Your task to perform on an android device: toggle pop-ups in chrome Image 0: 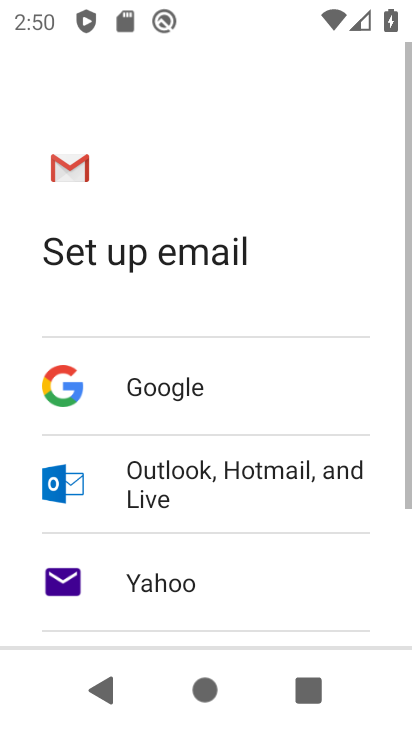
Step 0: press home button
Your task to perform on an android device: toggle pop-ups in chrome Image 1: 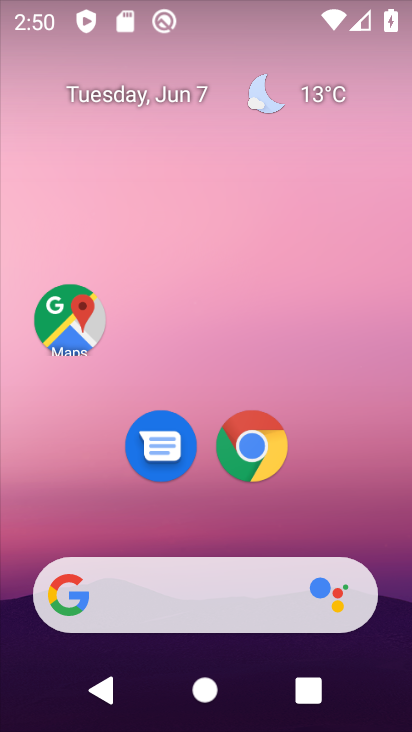
Step 1: click (260, 472)
Your task to perform on an android device: toggle pop-ups in chrome Image 2: 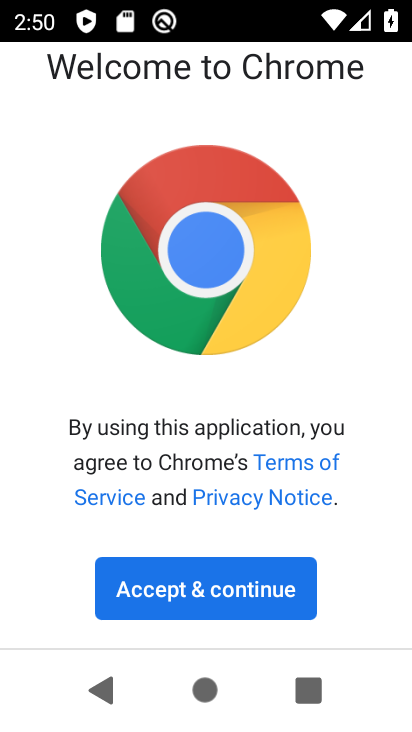
Step 2: click (220, 611)
Your task to perform on an android device: toggle pop-ups in chrome Image 3: 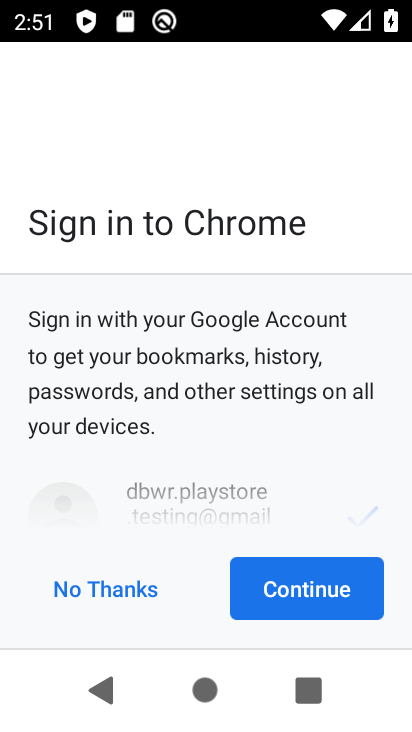
Step 3: click (283, 593)
Your task to perform on an android device: toggle pop-ups in chrome Image 4: 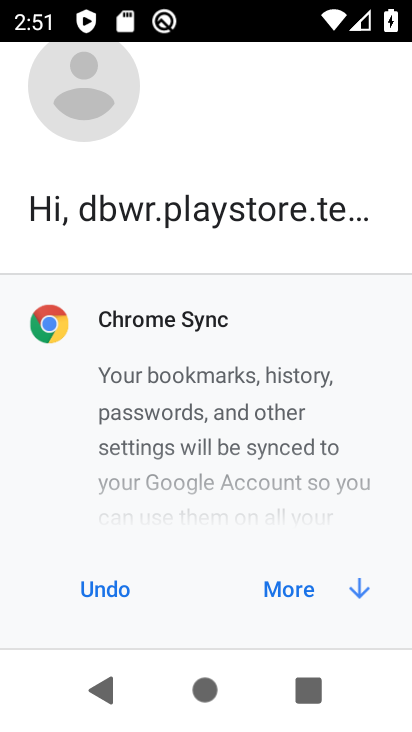
Step 4: click (335, 603)
Your task to perform on an android device: toggle pop-ups in chrome Image 5: 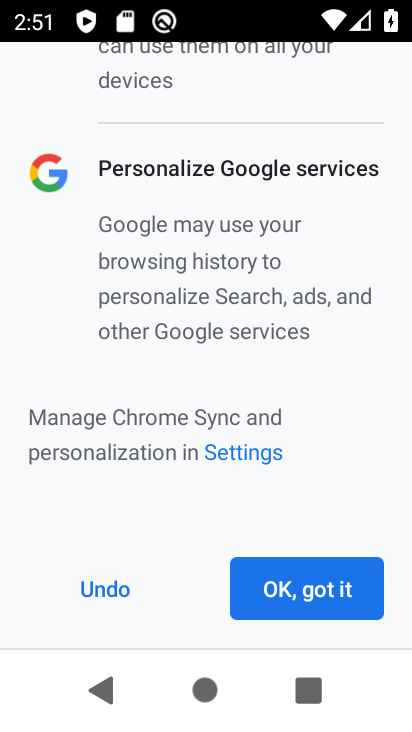
Step 5: click (346, 589)
Your task to perform on an android device: toggle pop-ups in chrome Image 6: 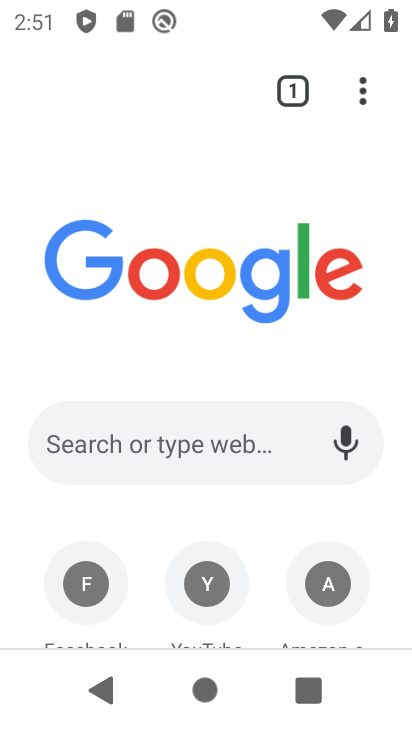
Step 6: drag from (358, 89) to (125, 479)
Your task to perform on an android device: toggle pop-ups in chrome Image 7: 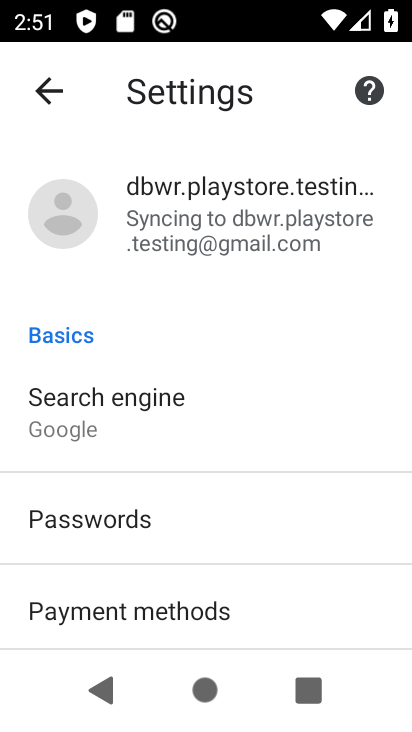
Step 7: drag from (166, 566) to (162, 166)
Your task to perform on an android device: toggle pop-ups in chrome Image 8: 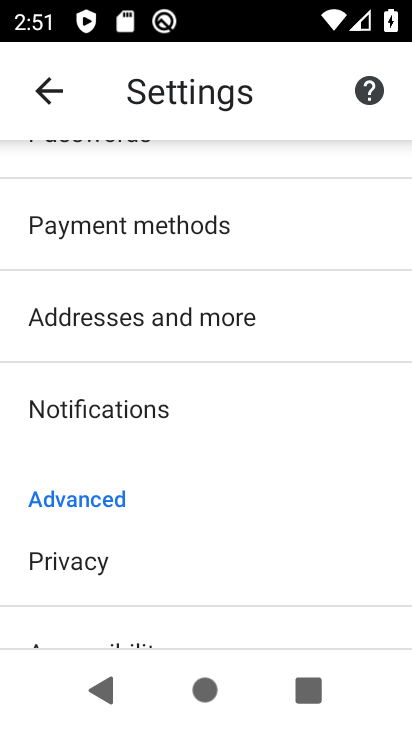
Step 8: drag from (212, 541) to (202, 127)
Your task to perform on an android device: toggle pop-ups in chrome Image 9: 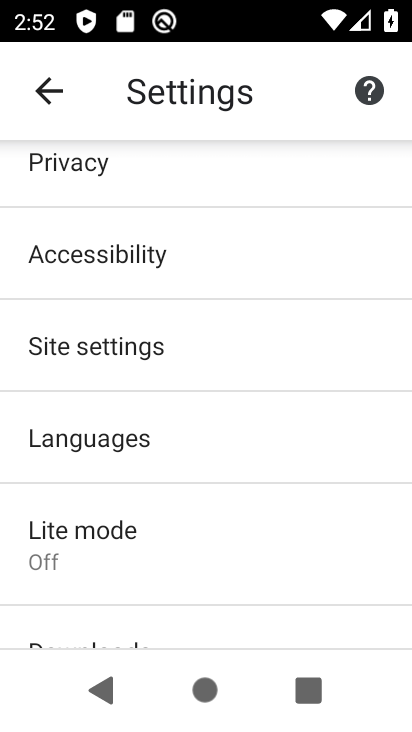
Step 9: drag from (193, 582) to (161, 398)
Your task to perform on an android device: toggle pop-ups in chrome Image 10: 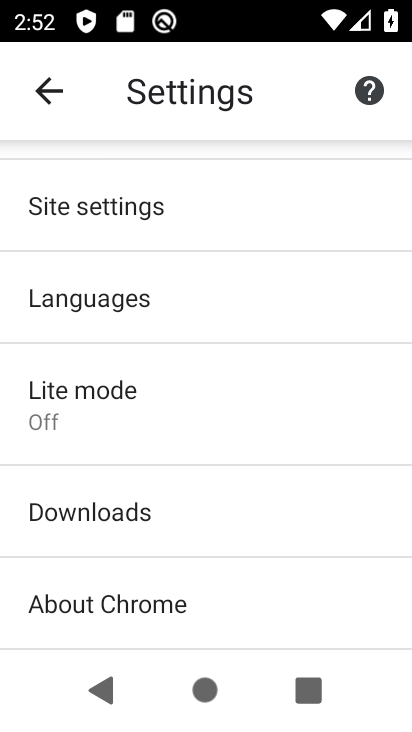
Step 10: click (69, 225)
Your task to perform on an android device: toggle pop-ups in chrome Image 11: 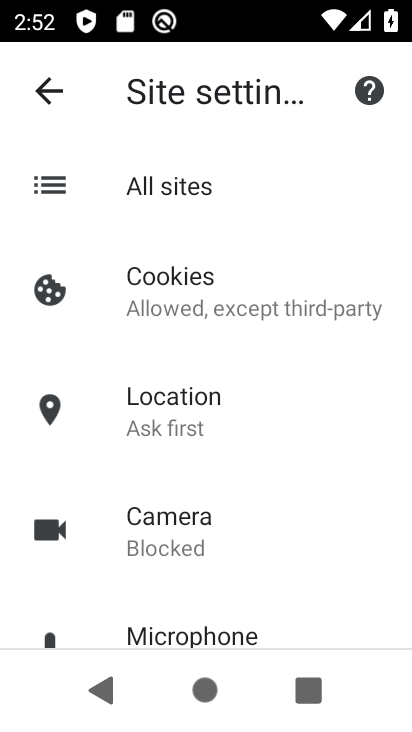
Step 11: drag from (280, 577) to (210, 151)
Your task to perform on an android device: toggle pop-ups in chrome Image 12: 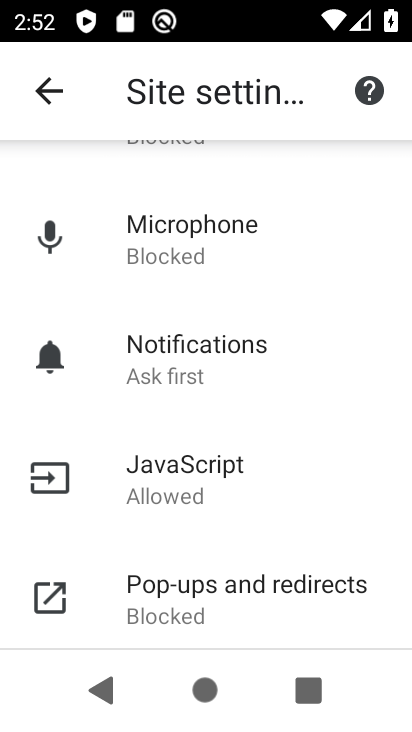
Step 12: drag from (195, 462) to (153, 187)
Your task to perform on an android device: toggle pop-ups in chrome Image 13: 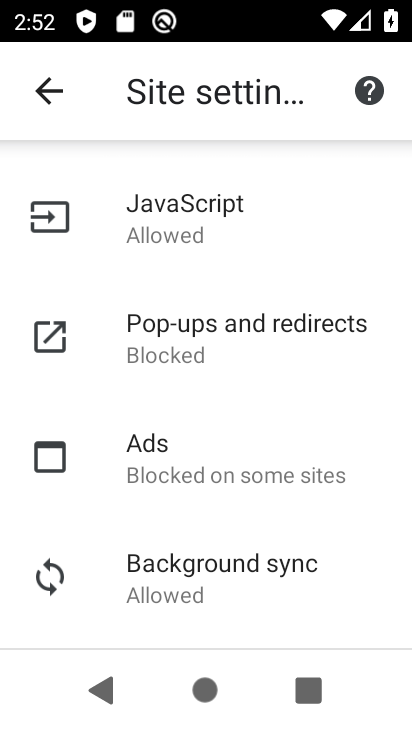
Step 13: click (144, 354)
Your task to perform on an android device: toggle pop-ups in chrome Image 14: 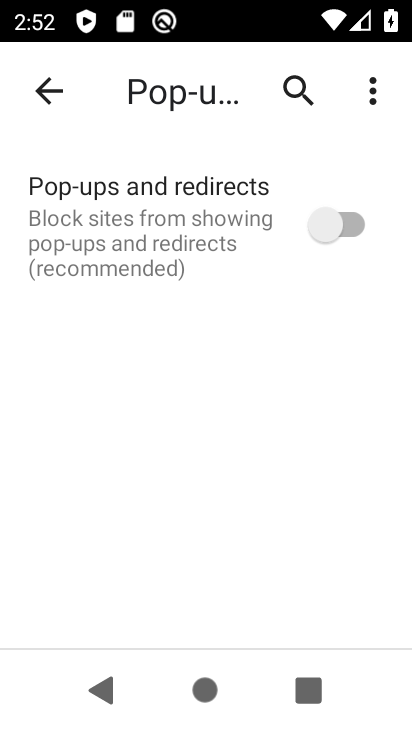
Step 14: click (344, 227)
Your task to perform on an android device: toggle pop-ups in chrome Image 15: 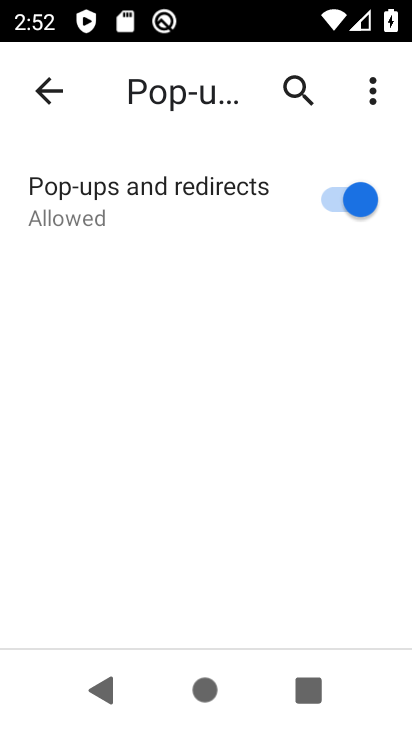
Step 15: task complete